Your task to perform on an android device: turn notification dots on Image 0: 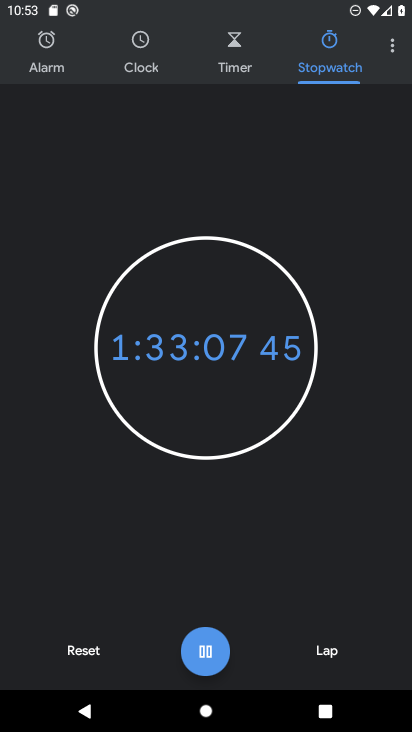
Step 0: press home button
Your task to perform on an android device: turn notification dots on Image 1: 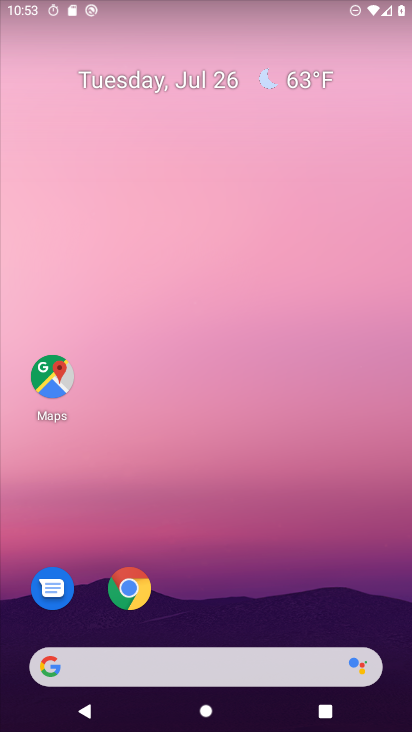
Step 1: drag from (179, 612) to (156, 299)
Your task to perform on an android device: turn notification dots on Image 2: 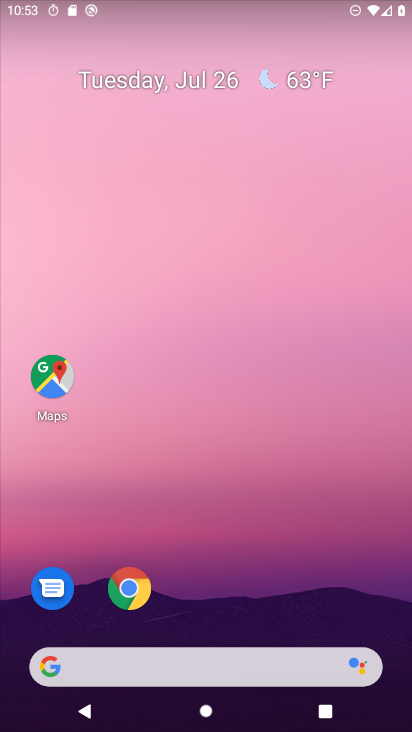
Step 2: drag from (225, 605) to (296, 135)
Your task to perform on an android device: turn notification dots on Image 3: 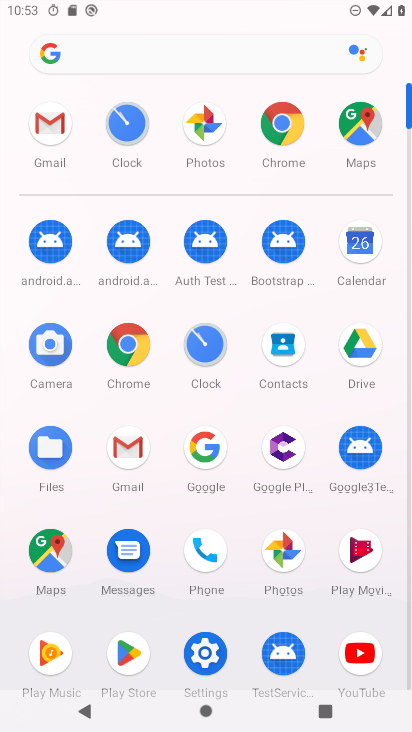
Step 3: click (217, 663)
Your task to perform on an android device: turn notification dots on Image 4: 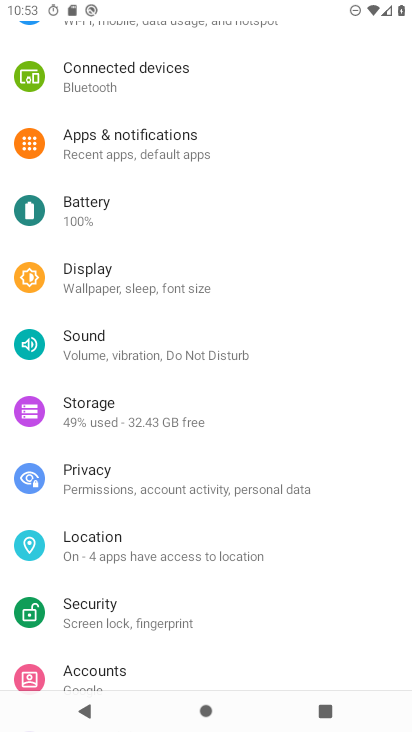
Step 4: click (141, 162)
Your task to perform on an android device: turn notification dots on Image 5: 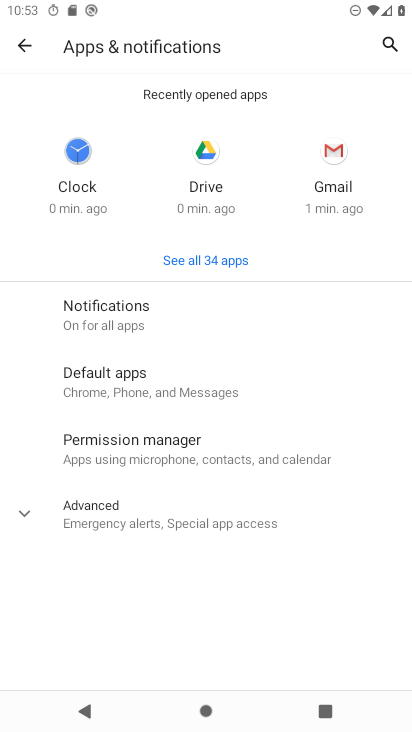
Step 5: click (169, 307)
Your task to perform on an android device: turn notification dots on Image 6: 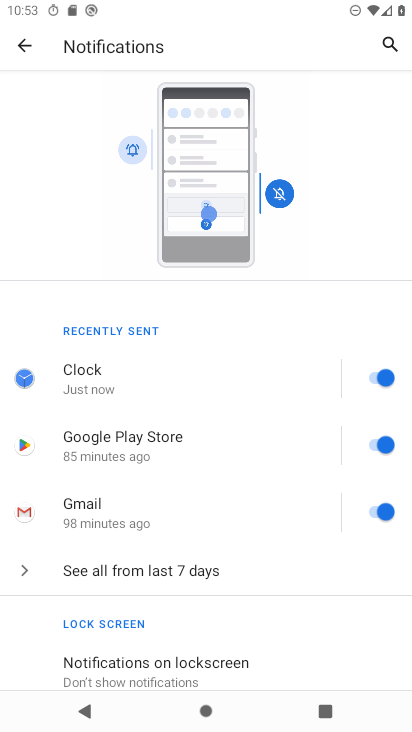
Step 6: drag from (184, 492) to (163, 179)
Your task to perform on an android device: turn notification dots on Image 7: 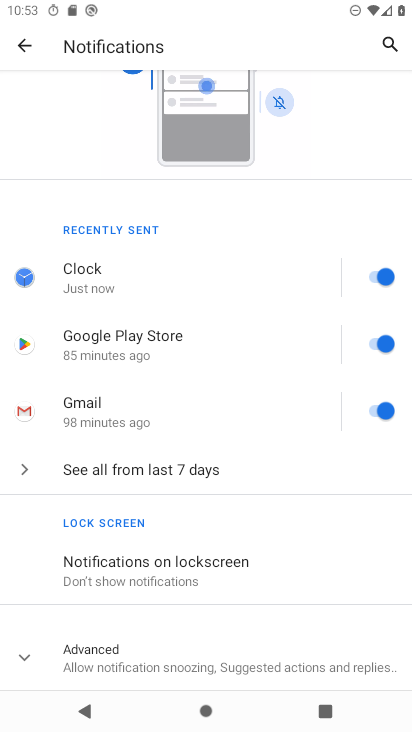
Step 7: drag from (185, 614) to (205, 257)
Your task to perform on an android device: turn notification dots on Image 8: 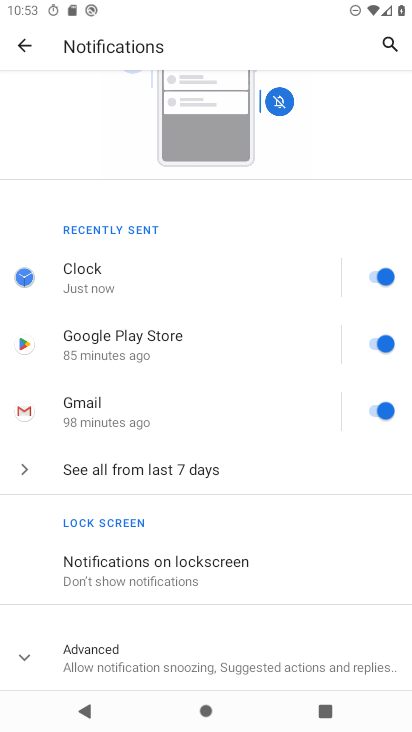
Step 8: click (165, 629)
Your task to perform on an android device: turn notification dots on Image 9: 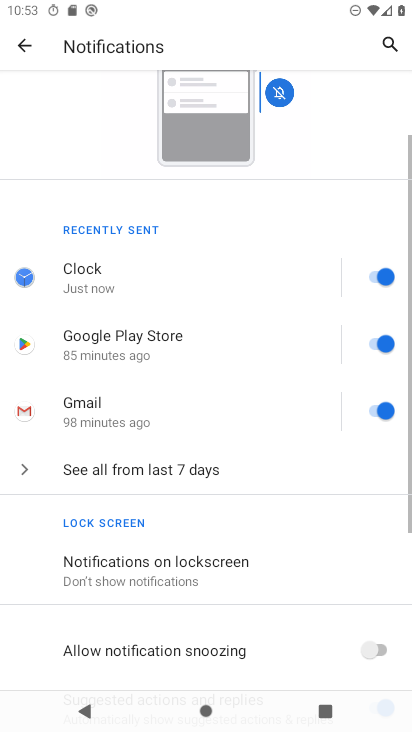
Step 9: task complete